Your task to perform on an android device: toggle show notifications on the lock screen Image 0: 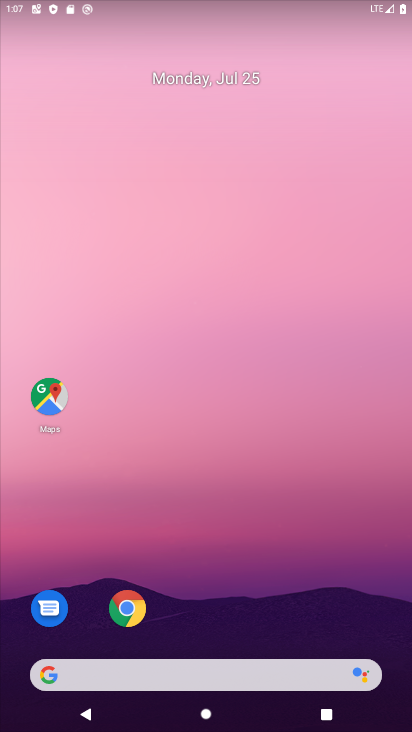
Step 0: drag from (208, 599) to (175, 7)
Your task to perform on an android device: toggle show notifications on the lock screen Image 1: 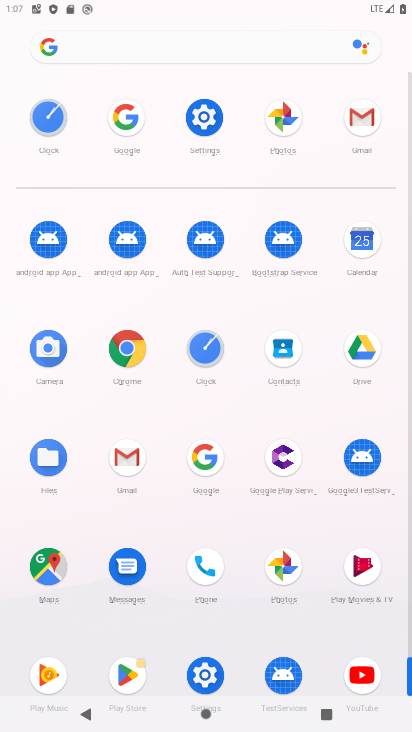
Step 1: click (202, 110)
Your task to perform on an android device: toggle show notifications on the lock screen Image 2: 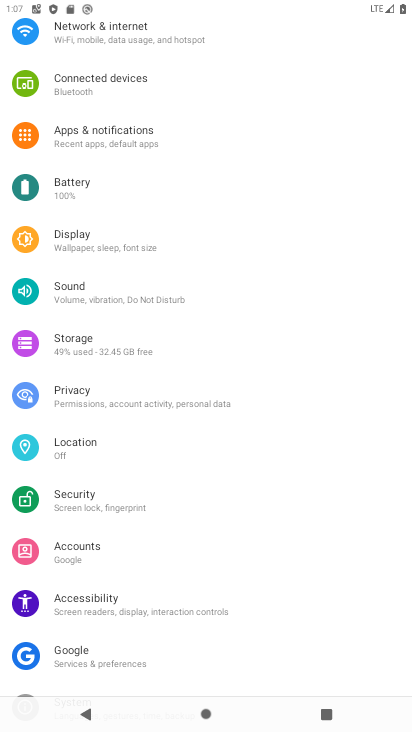
Step 2: click (86, 139)
Your task to perform on an android device: toggle show notifications on the lock screen Image 3: 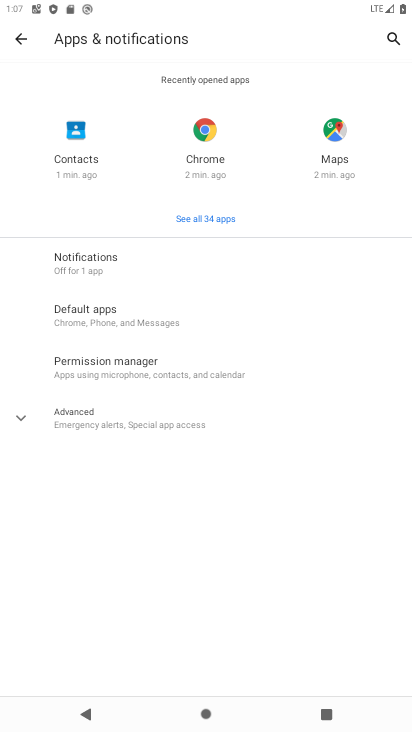
Step 3: click (81, 257)
Your task to perform on an android device: toggle show notifications on the lock screen Image 4: 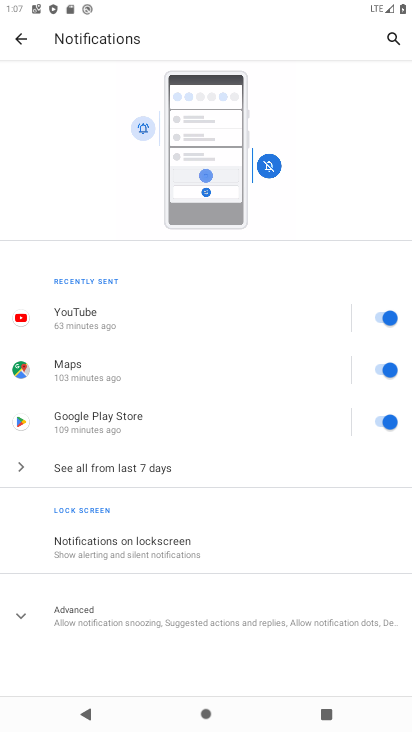
Step 4: click (113, 549)
Your task to perform on an android device: toggle show notifications on the lock screen Image 5: 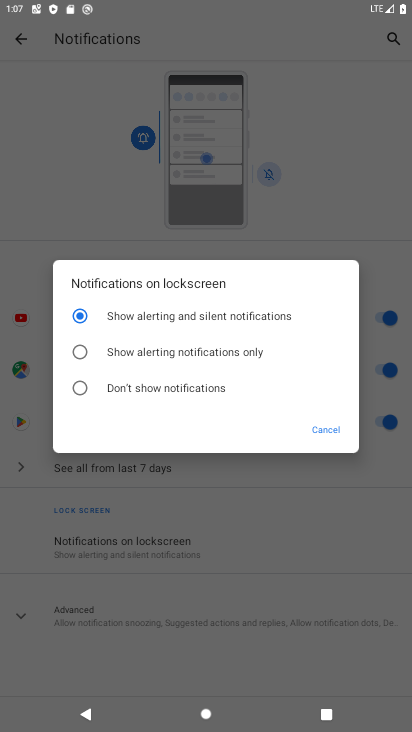
Step 5: click (77, 388)
Your task to perform on an android device: toggle show notifications on the lock screen Image 6: 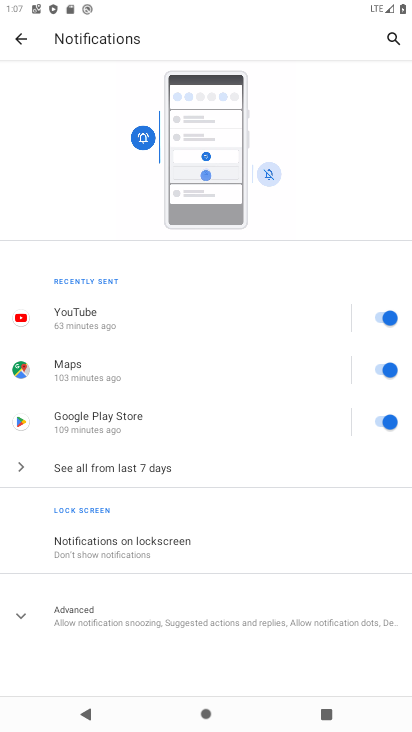
Step 6: task complete